Your task to perform on an android device: change the clock style Image 0: 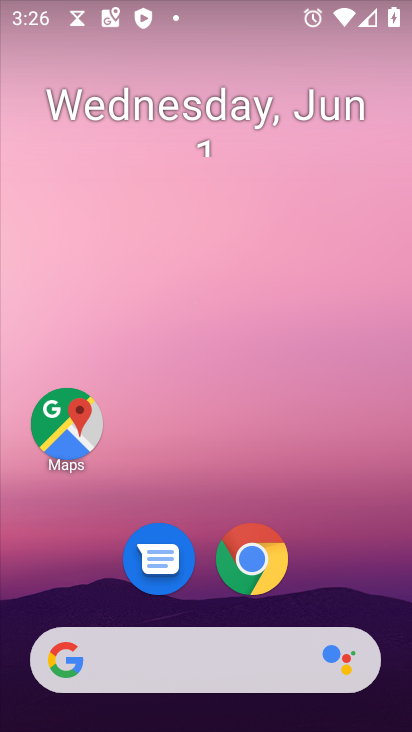
Step 0: drag from (345, 574) to (351, 9)
Your task to perform on an android device: change the clock style Image 1: 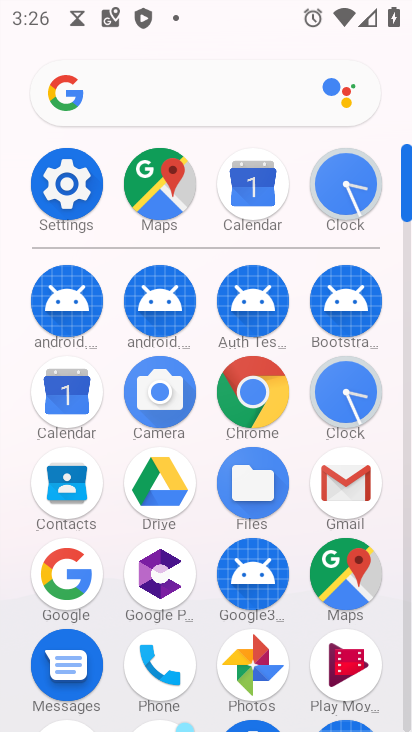
Step 1: click (345, 390)
Your task to perform on an android device: change the clock style Image 2: 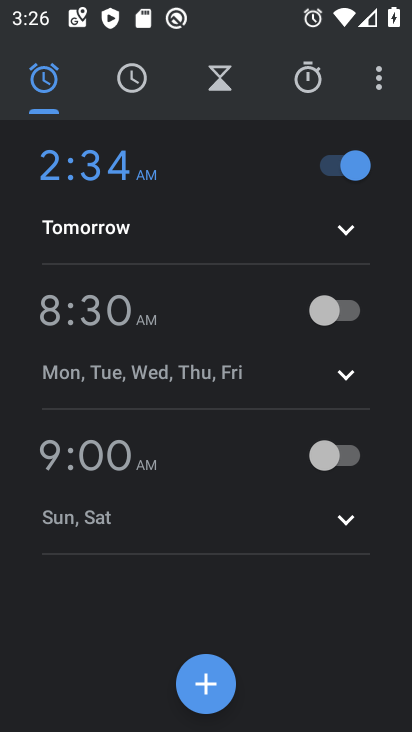
Step 2: click (368, 85)
Your task to perform on an android device: change the clock style Image 3: 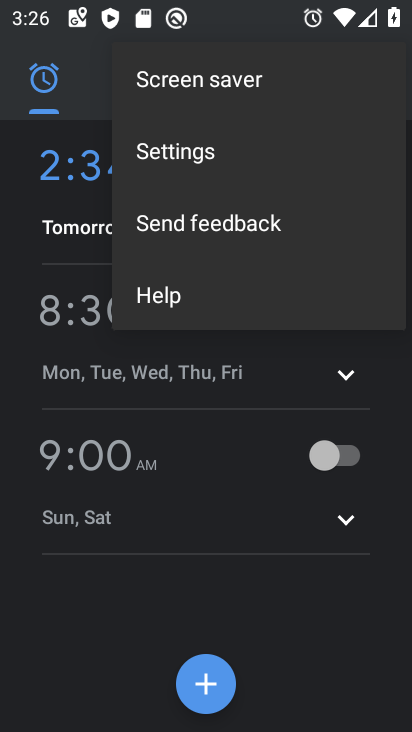
Step 3: click (289, 153)
Your task to perform on an android device: change the clock style Image 4: 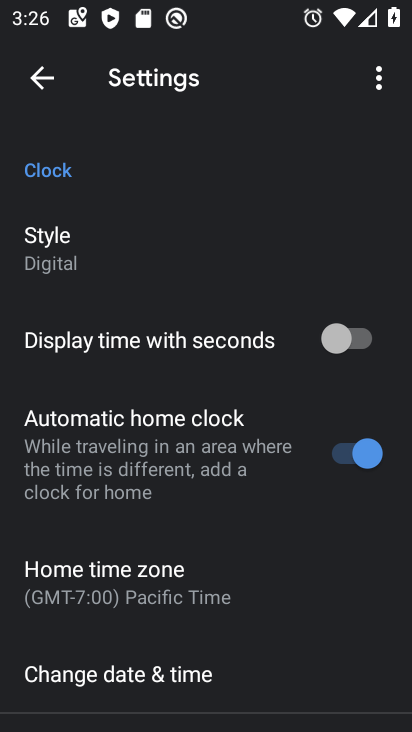
Step 4: click (66, 257)
Your task to perform on an android device: change the clock style Image 5: 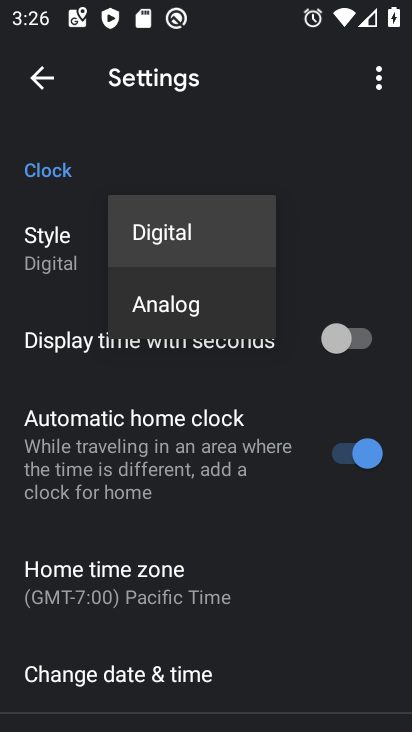
Step 5: click (194, 296)
Your task to perform on an android device: change the clock style Image 6: 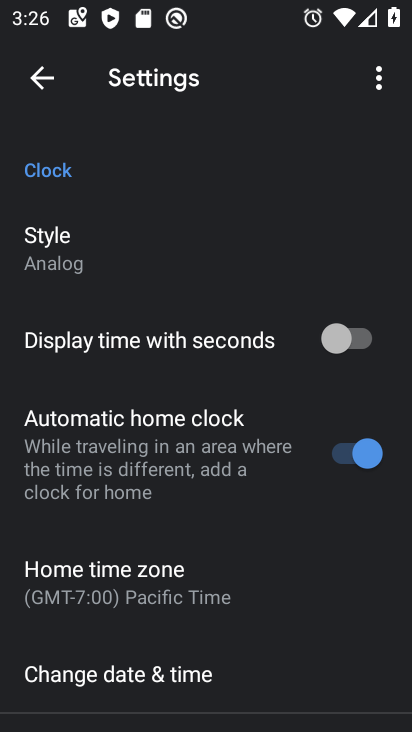
Step 6: task complete